Your task to perform on an android device: turn off location Image 0: 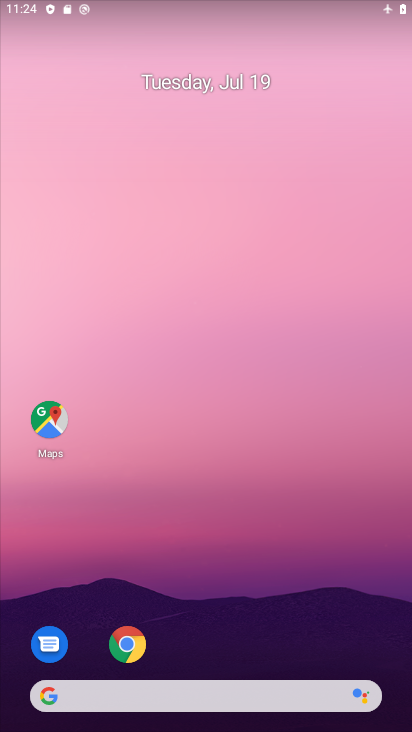
Step 0: drag from (233, 576) to (312, 10)
Your task to perform on an android device: turn off location Image 1: 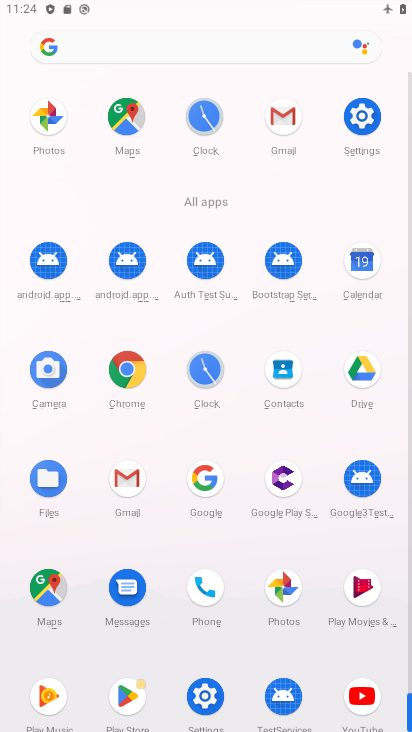
Step 1: click (199, 700)
Your task to perform on an android device: turn off location Image 2: 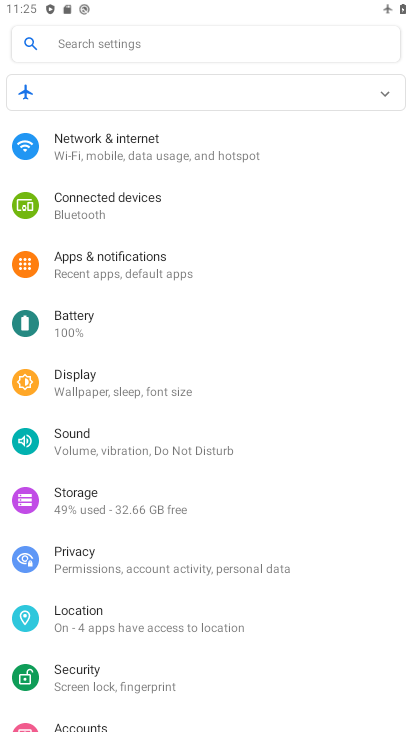
Step 2: click (96, 630)
Your task to perform on an android device: turn off location Image 3: 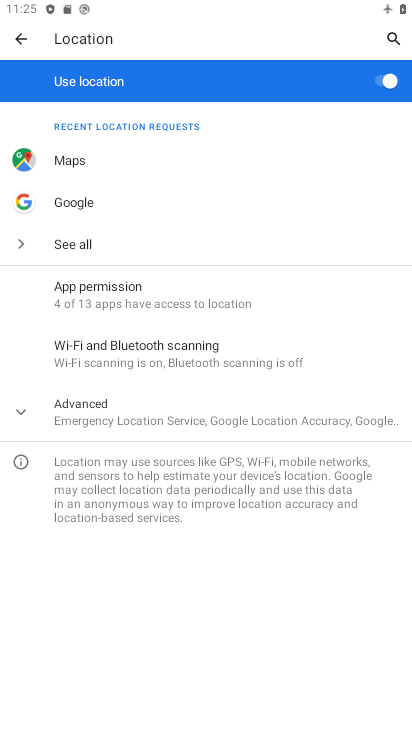
Step 3: click (379, 81)
Your task to perform on an android device: turn off location Image 4: 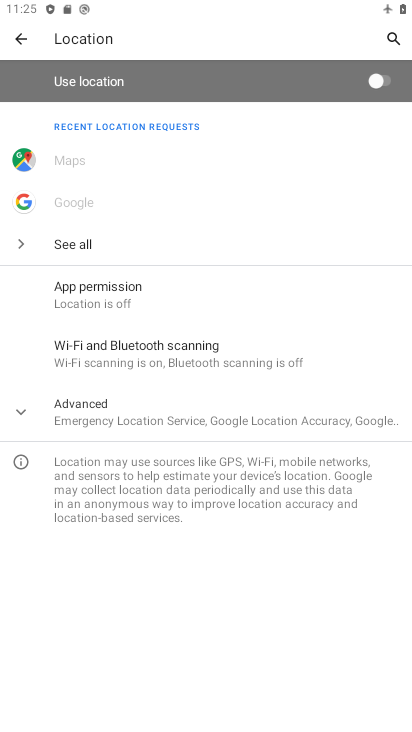
Step 4: task complete